Your task to perform on an android device: Open Youtube and go to the subscriptions tab Image 0: 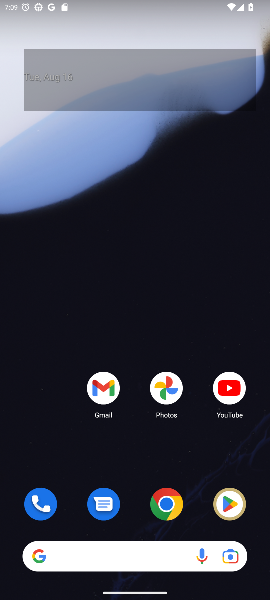
Step 0: click (224, 395)
Your task to perform on an android device: Open Youtube and go to the subscriptions tab Image 1: 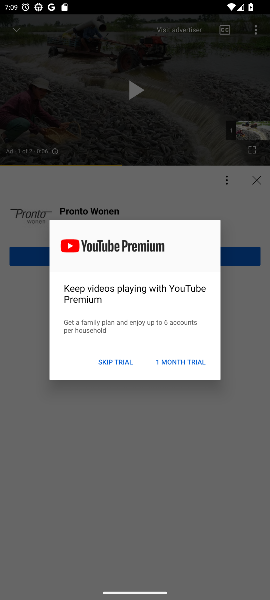
Step 1: press back button
Your task to perform on an android device: Open Youtube and go to the subscriptions tab Image 2: 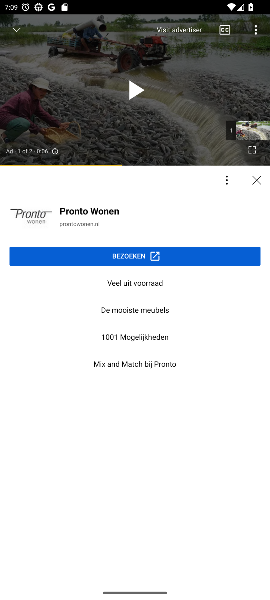
Step 2: press home button
Your task to perform on an android device: Open Youtube and go to the subscriptions tab Image 3: 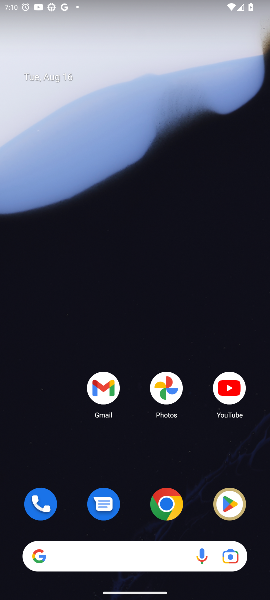
Step 3: click (230, 418)
Your task to perform on an android device: Open Youtube and go to the subscriptions tab Image 4: 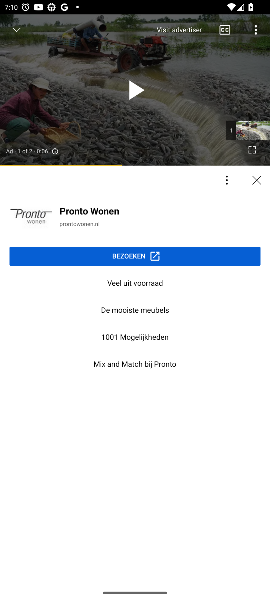
Step 4: press back button
Your task to perform on an android device: Open Youtube and go to the subscriptions tab Image 5: 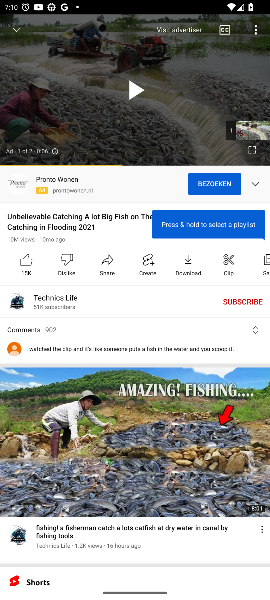
Step 5: press back button
Your task to perform on an android device: Open Youtube and go to the subscriptions tab Image 6: 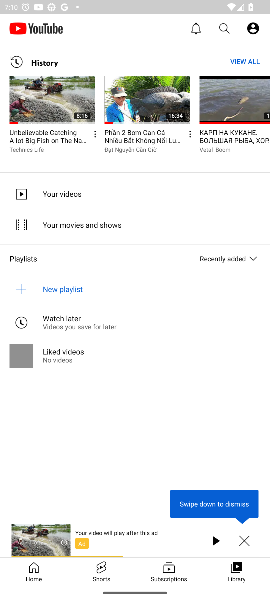
Step 6: click (163, 576)
Your task to perform on an android device: Open Youtube and go to the subscriptions tab Image 7: 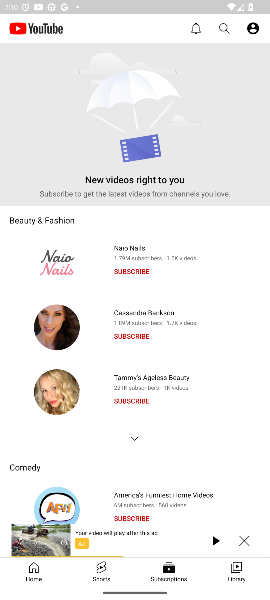
Step 7: task complete